Your task to perform on an android device: Open settings Image 0: 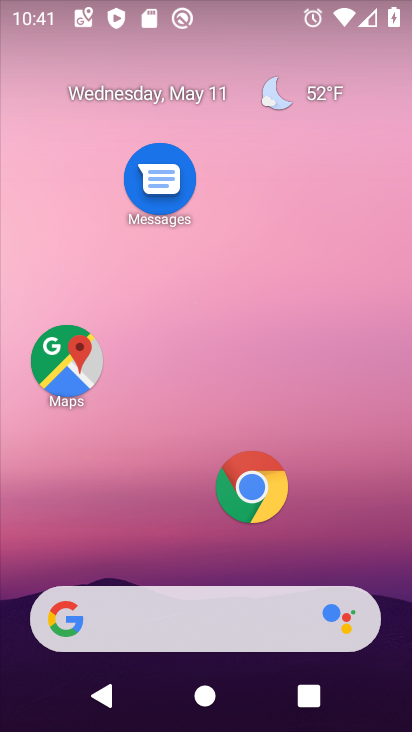
Step 0: drag from (192, 568) to (218, 211)
Your task to perform on an android device: Open settings Image 1: 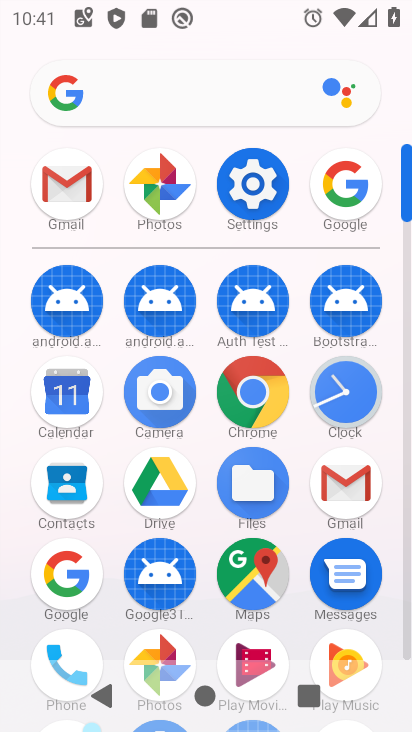
Step 1: click (218, 195)
Your task to perform on an android device: Open settings Image 2: 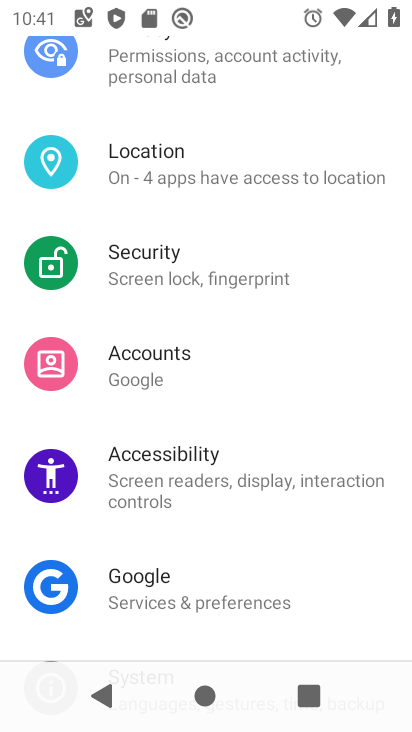
Step 2: task complete